Your task to perform on an android device: Search for sushi restaurants on Maps Image 0: 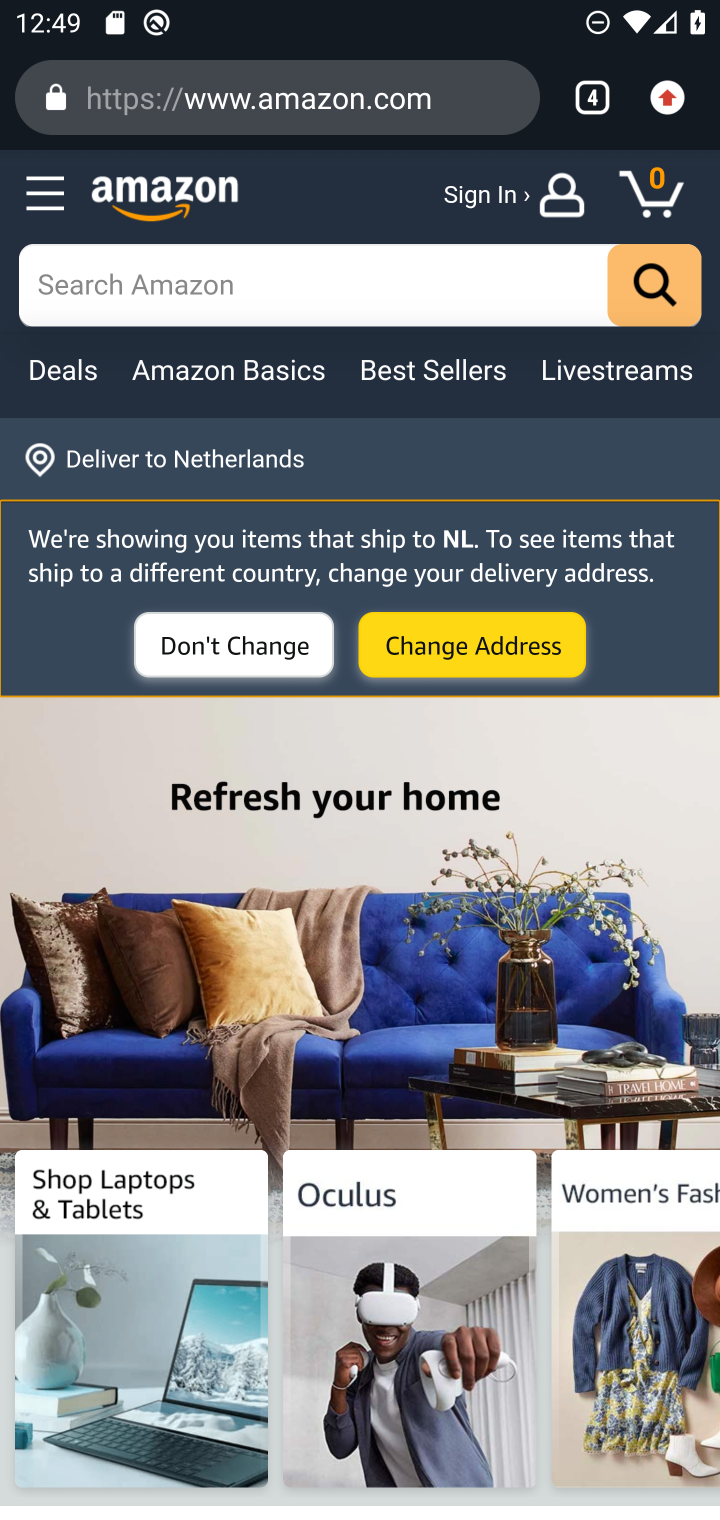
Step 0: press home button
Your task to perform on an android device: Search for sushi restaurants on Maps Image 1: 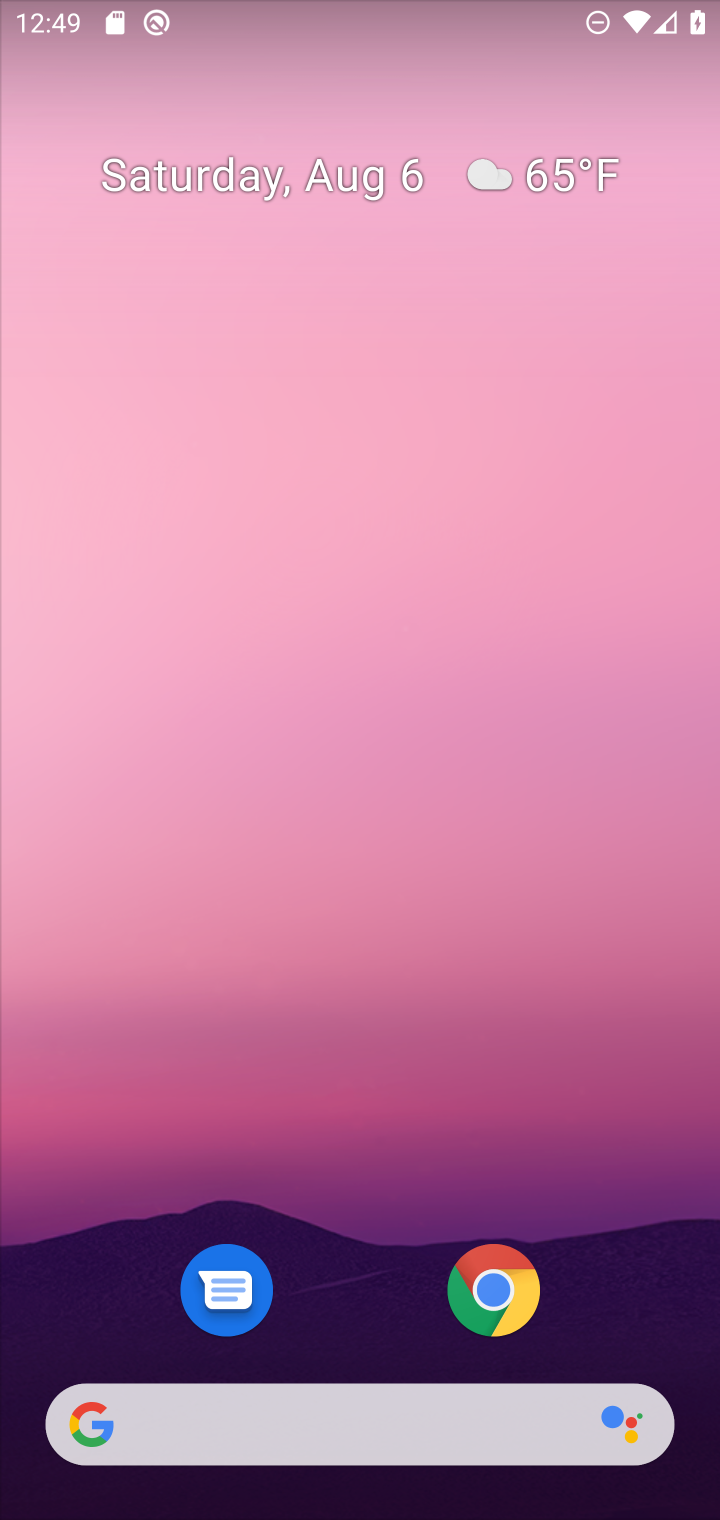
Step 1: drag from (357, 1338) to (217, 363)
Your task to perform on an android device: Search for sushi restaurants on Maps Image 2: 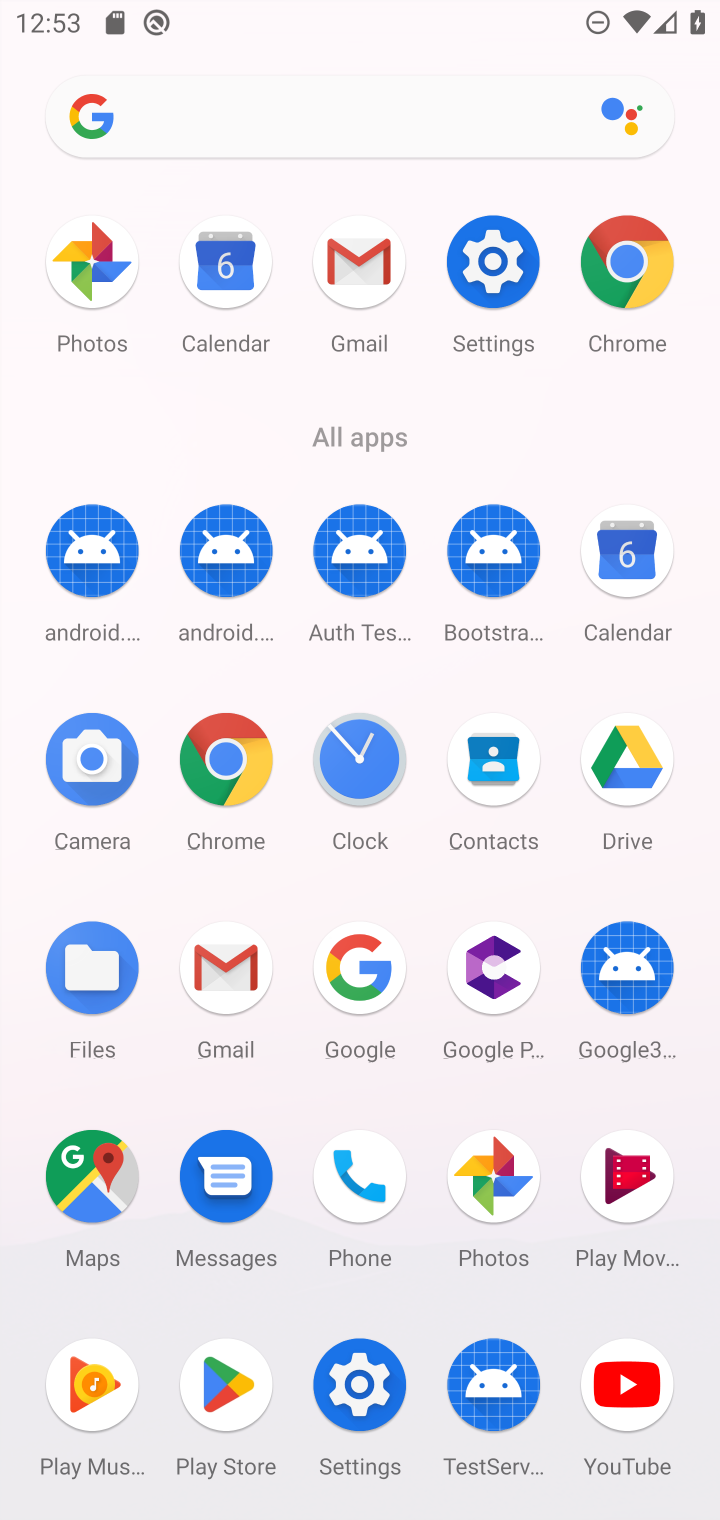
Step 2: click (67, 1176)
Your task to perform on an android device: Search for sushi restaurants on Maps Image 3: 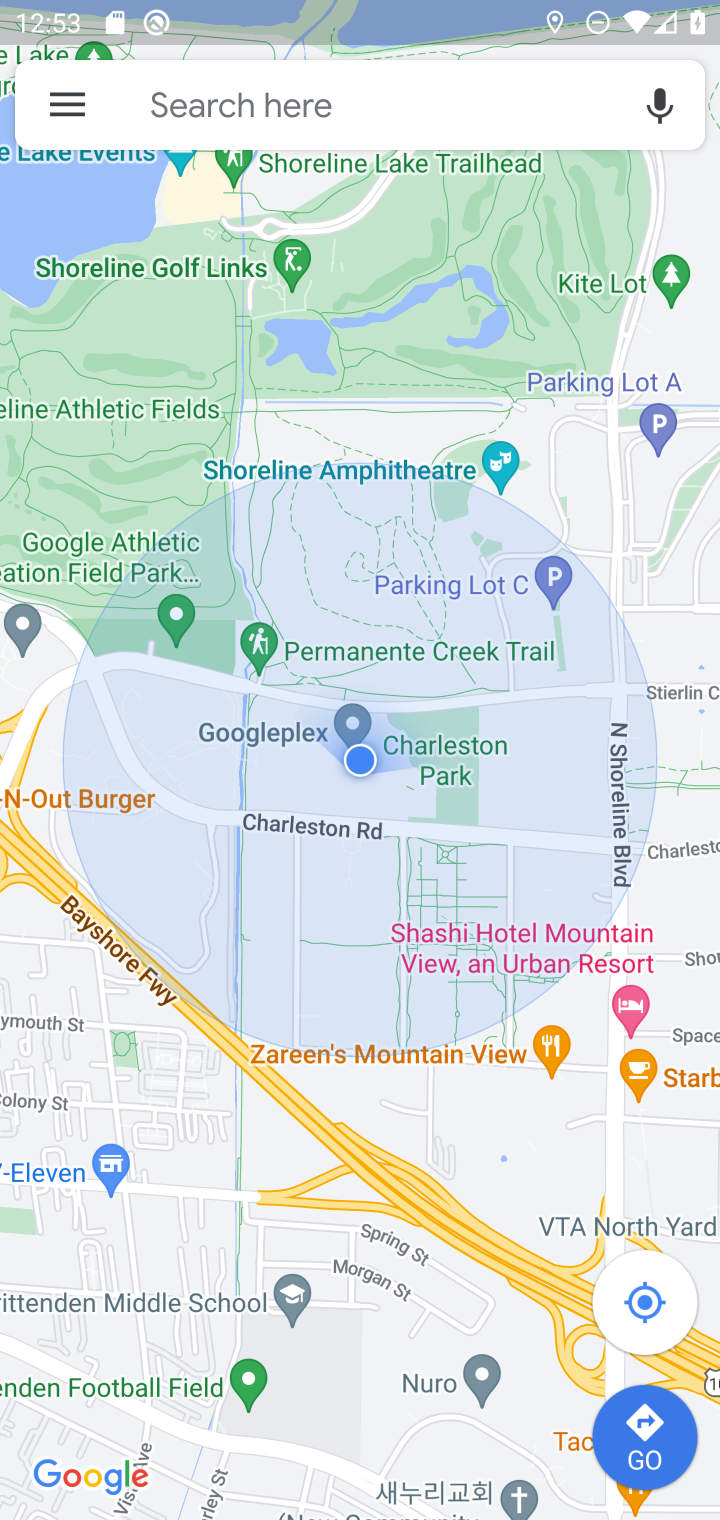
Step 3: click (341, 86)
Your task to perform on an android device: Search for sushi restaurants on Maps Image 4: 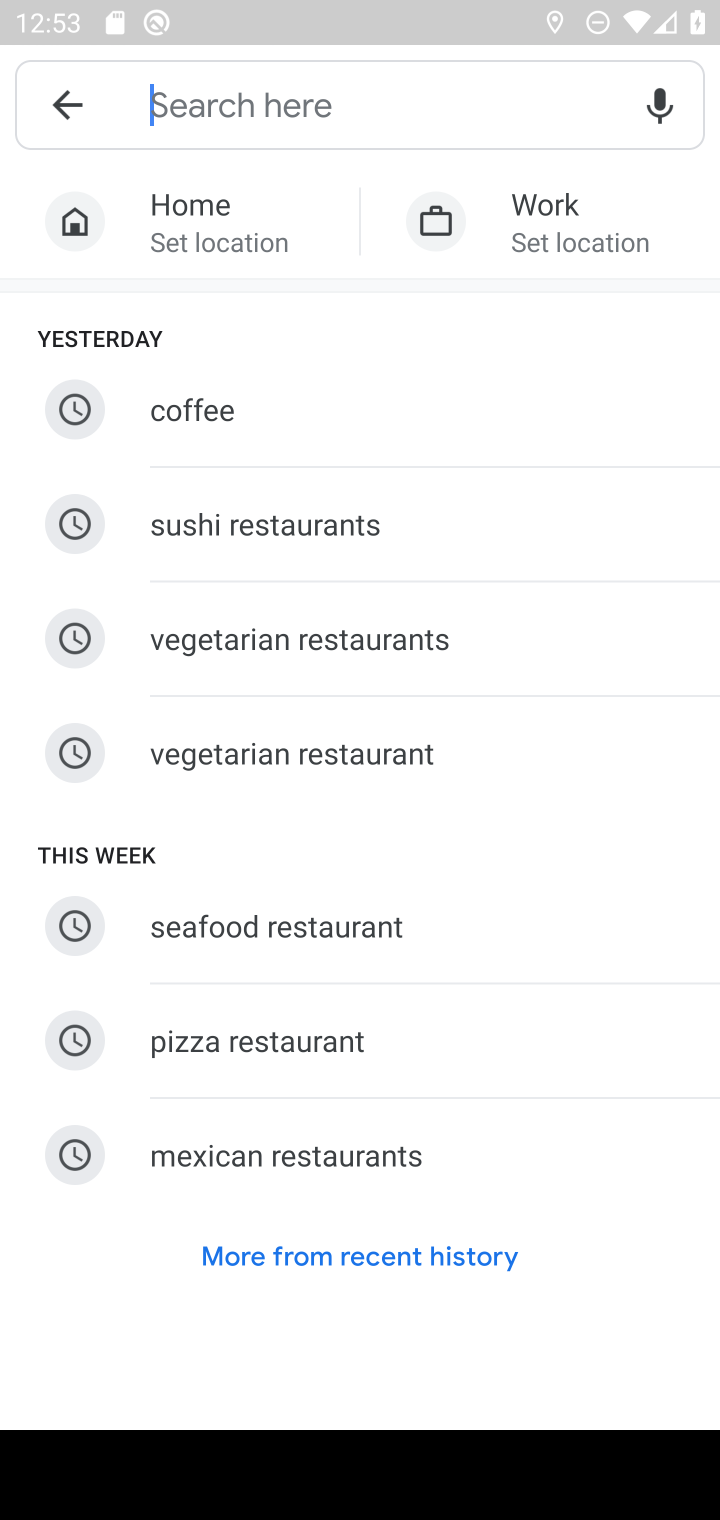
Step 4: click (156, 527)
Your task to perform on an android device: Search for sushi restaurants on Maps Image 5: 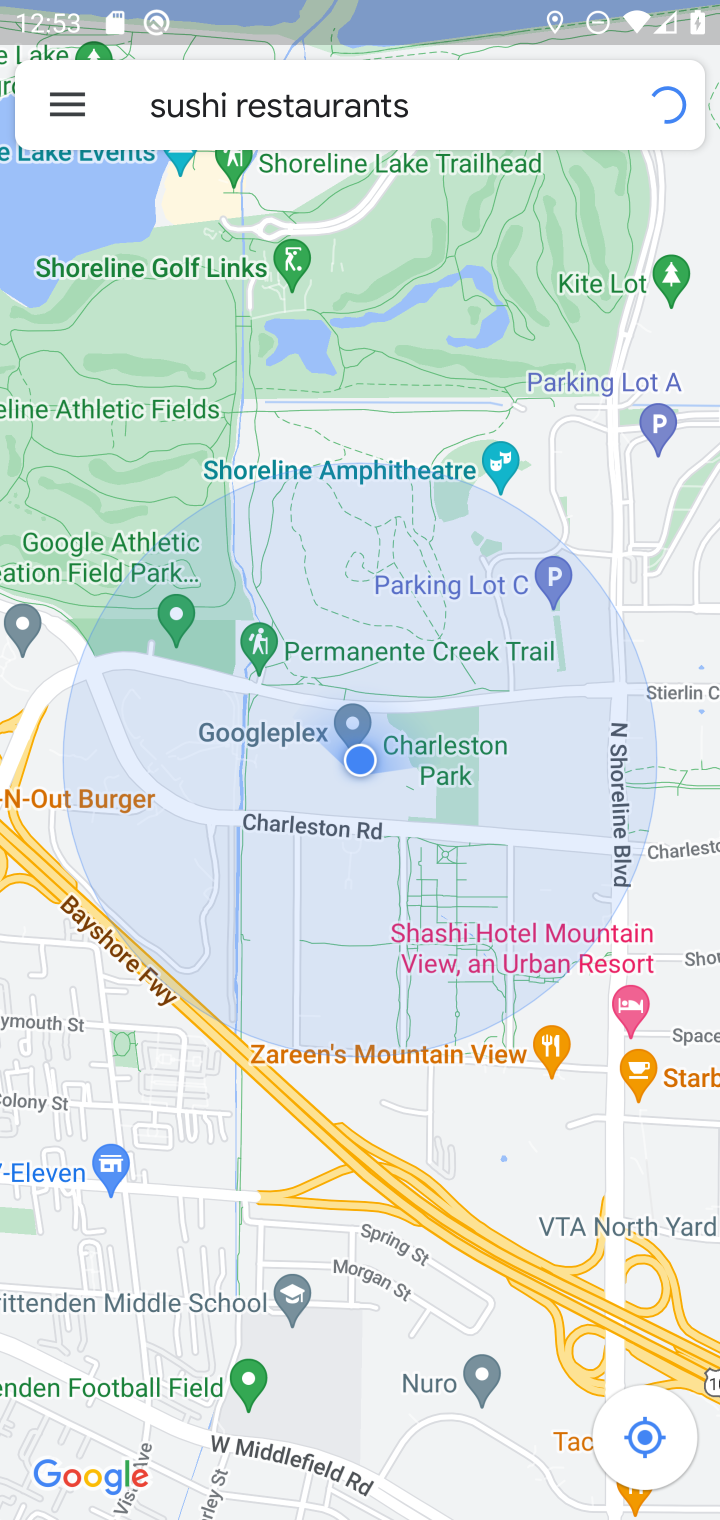
Step 5: task complete